Your task to perform on an android device: Open Chrome and go to the settings page Image 0: 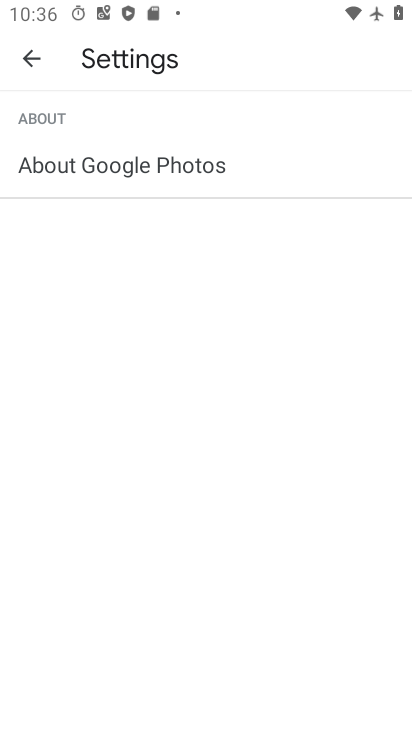
Step 0: press back button
Your task to perform on an android device: Open Chrome and go to the settings page Image 1: 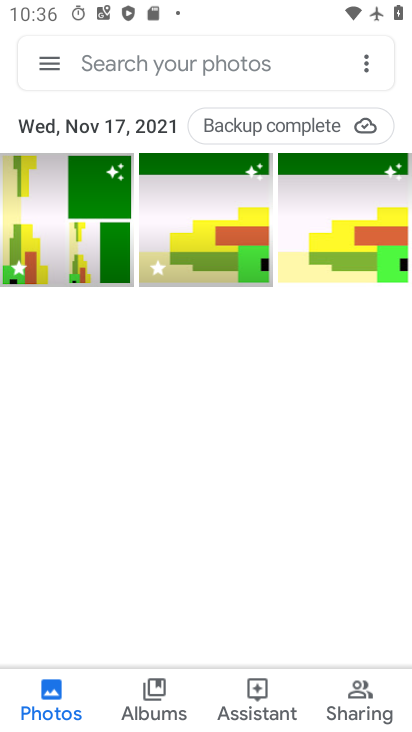
Step 1: press back button
Your task to perform on an android device: Open Chrome and go to the settings page Image 2: 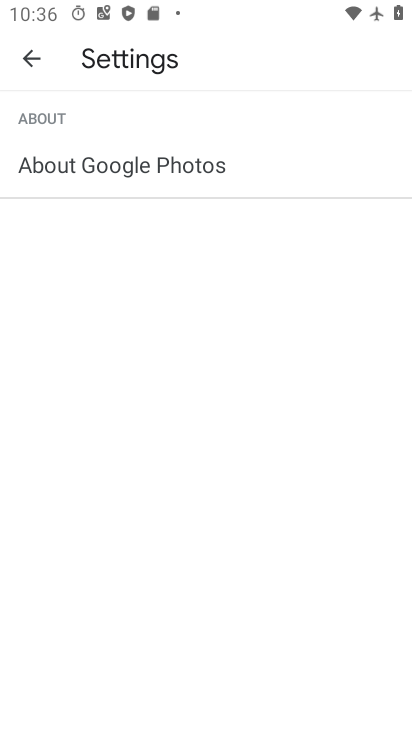
Step 2: press home button
Your task to perform on an android device: Open Chrome and go to the settings page Image 3: 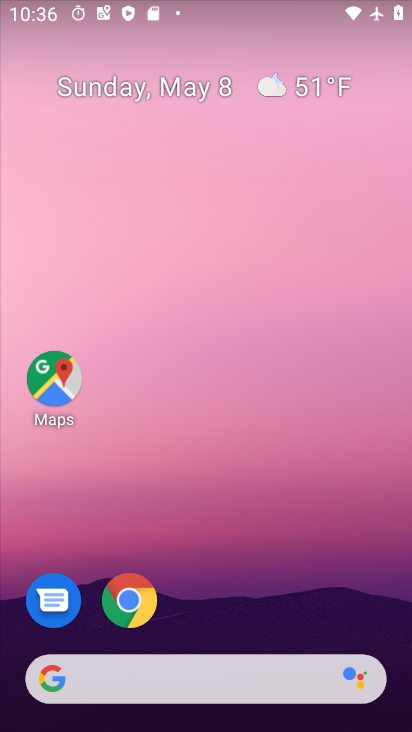
Step 3: drag from (219, 581) to (232, 0)
Your task to perform on an android device: Open Chrome and go to the settings page Image 4: 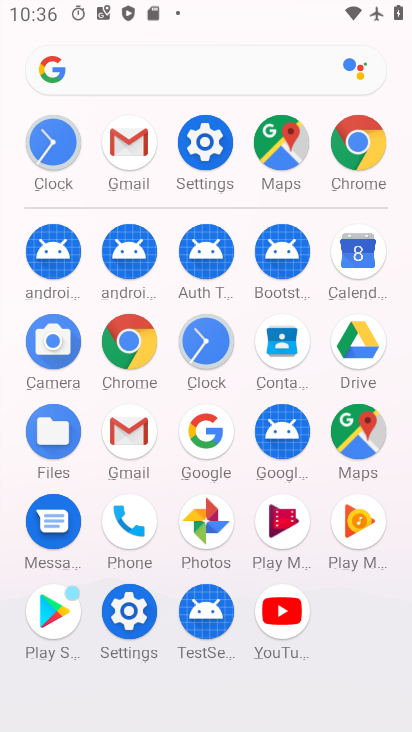
Step 4: click (131, 335)
Your task to perform on an android device: Open Chrome and go to the settings page Image 5: 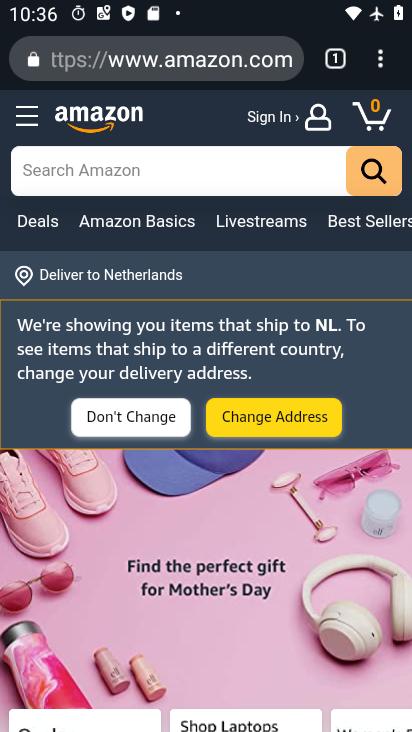
Step 5: task complete